Your task to perform on an android device: Open Maps and search for coffee Image 0: 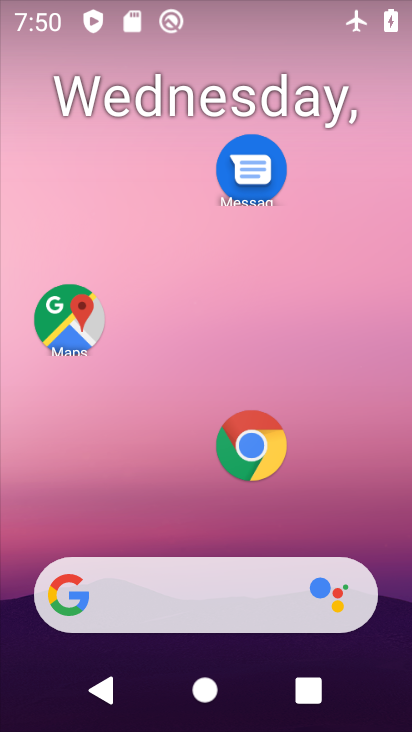
Step 0: click (72, 316)
Your task to perform on an android device: Open Maps and search for coffee Image 1: 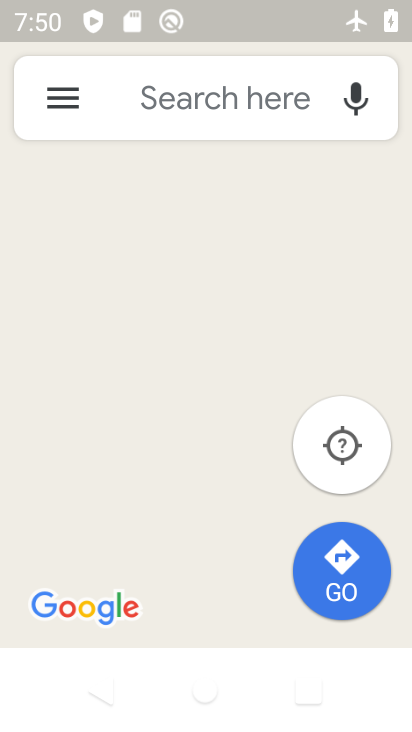
Step 1: click (136, 84)
Your task to perform on an android device: Open Maps and search for coffee Image 2: 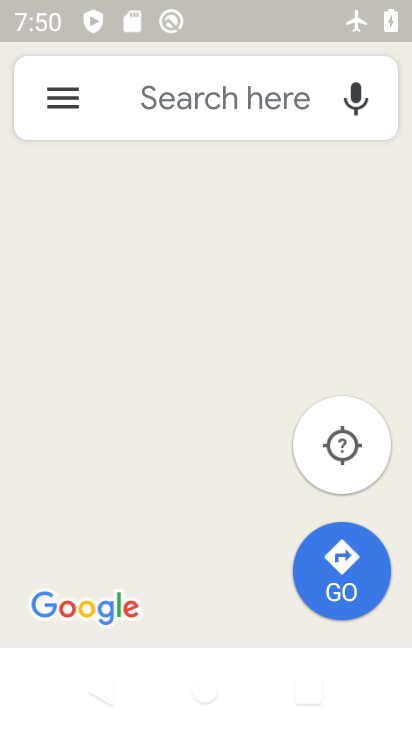
Step 2: click (140, 86)
Your task to perform on an android device: Open Maps and search for coffee Image 3: 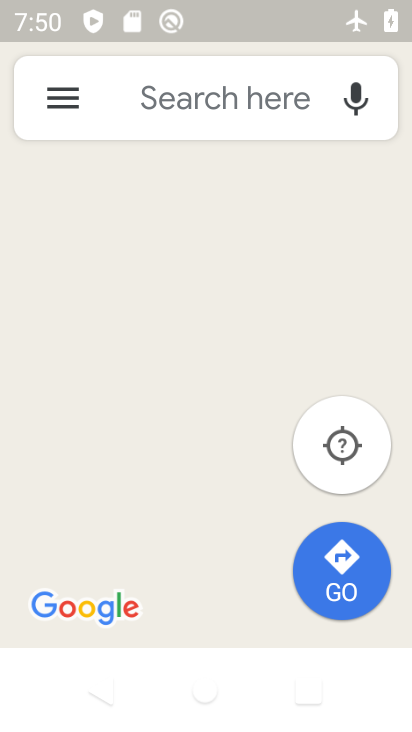
Step 3: click (142, 87)
Your task to perform on an android device: Open Maps and search for coffee Image 4: 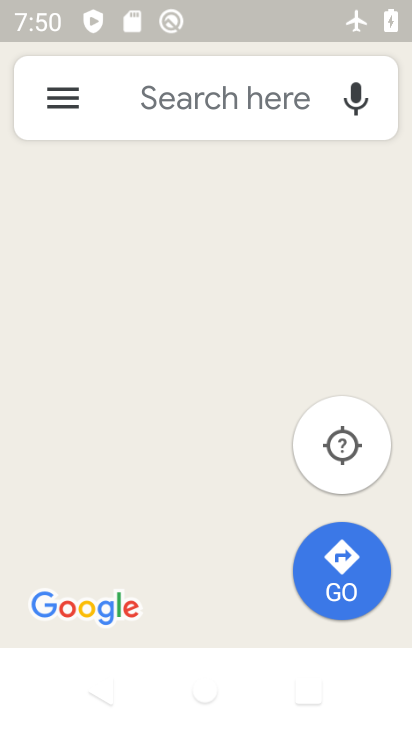
Step 4: click (143, 87)
Your task to perform on an android device: Open Maps and search for coffee Image 5: 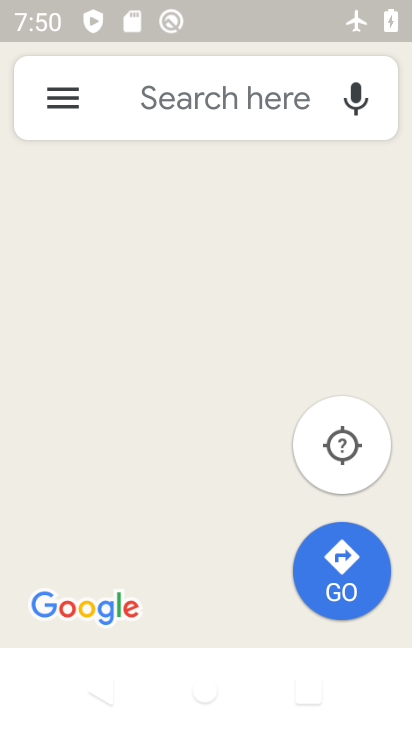
Step 5: click (143, 87)
Your task to perform on an android device: Open Maps and search for coffee Image 6: 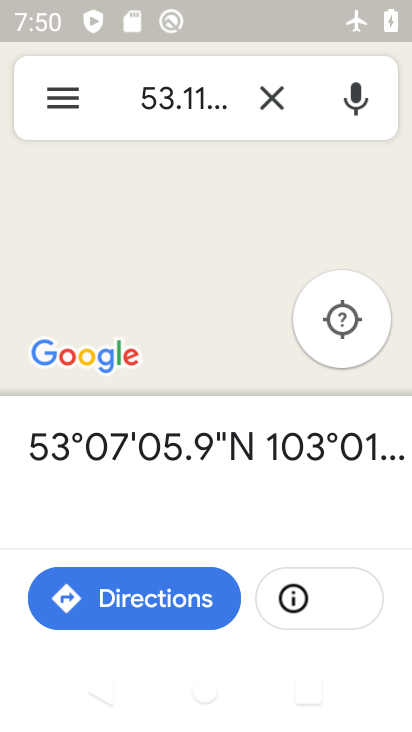
Step 6: click (147, 90)
Your task to perform on an android device: Open Maps and search for coffee Image 7: 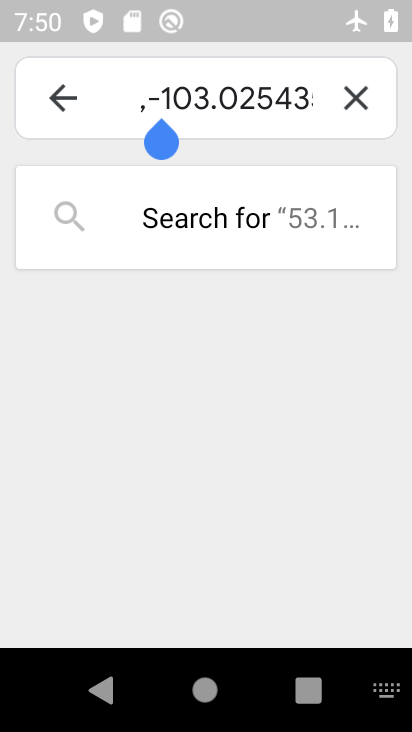
Step 7: click (354, 98)
Your task to perform on an android device: Open Maps and search for coffee Image 8: 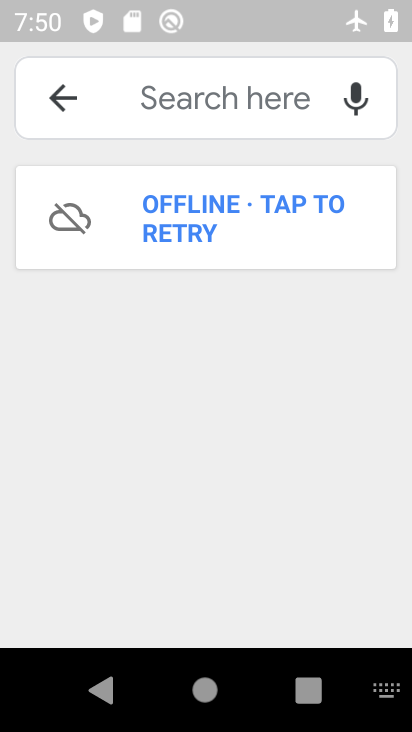
Step 8: type "coffee"
Your task to perform on an android device: Open Maps and search for coffee Image 9: 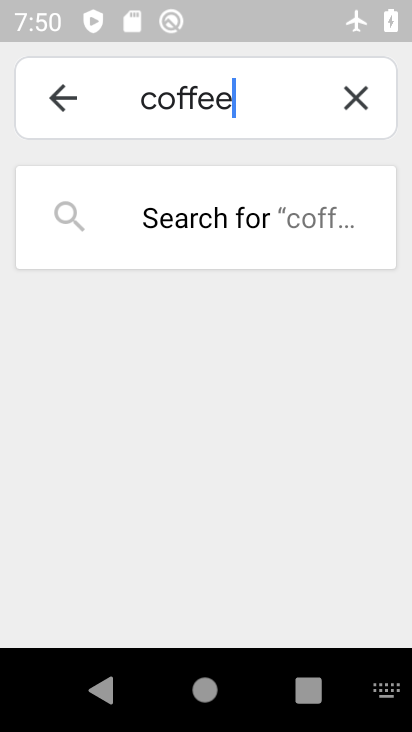
Step 9: click (245, 113)
Your task to perform on an android device: Open Maps and search for coffee Image 10: 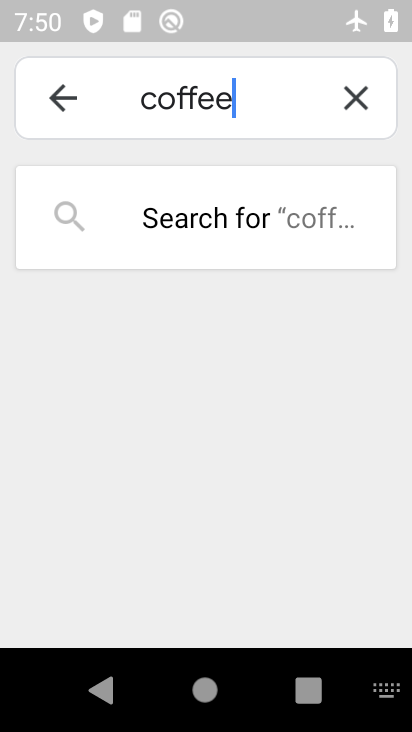
Step 10: click (245, 113)
Your task to perform on an android device: Open Maps and search for coffee Image 11: 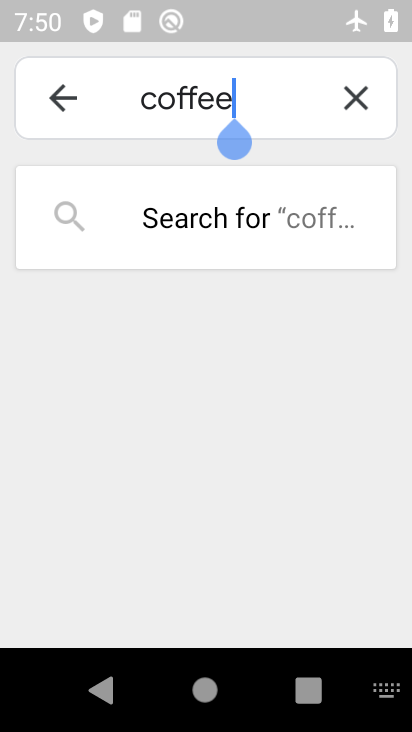
Step 11: click (233, 109)
Your task to perform on an android device: Open Maps and search for coffee Image 12: 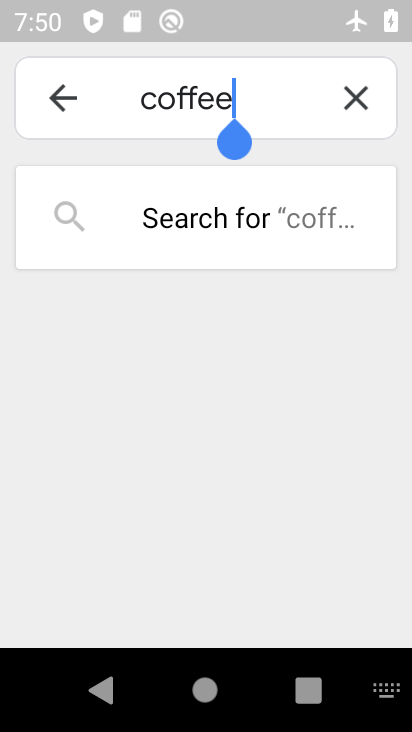
Step 12: click (234, 109)
Your task to perform on an android device: Open Maps and search for coffee Image 13: 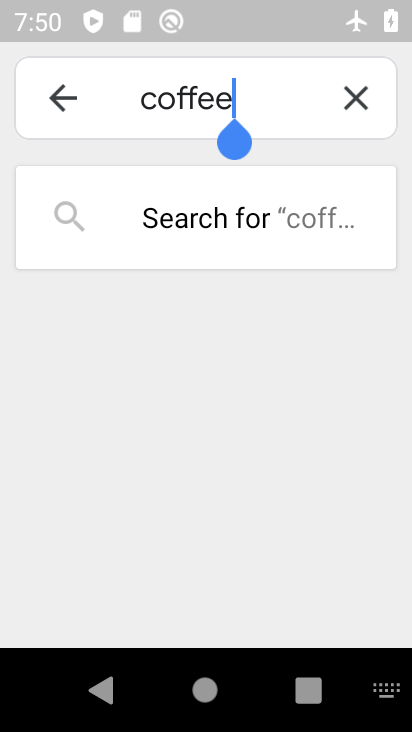
Step 13: task complete